Your task to perform on an android device: Go to Google maps Image 0: 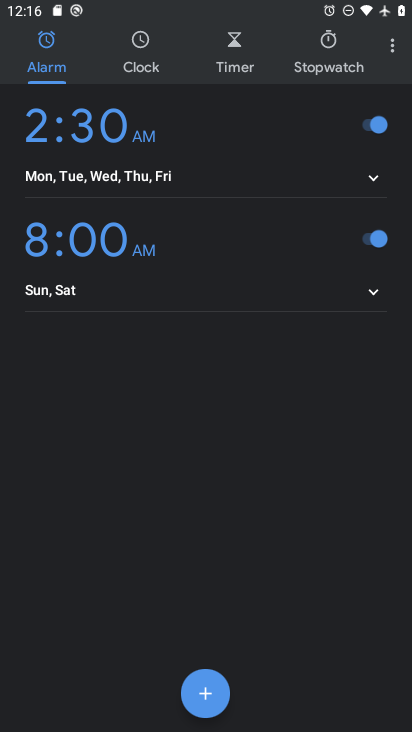
Step 0: press home button
Your task to perform on an android device: Go to Google maps Image 1: 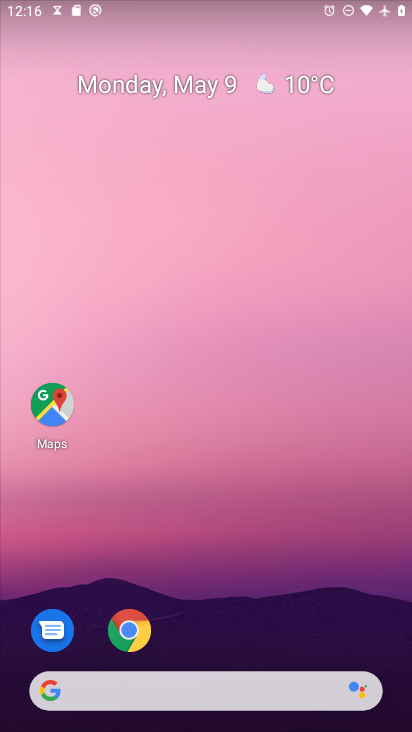
Step 1: drag from (180, 695) to (258, 194)
Your task to perform on an android device: Go to Google maps Image 2: 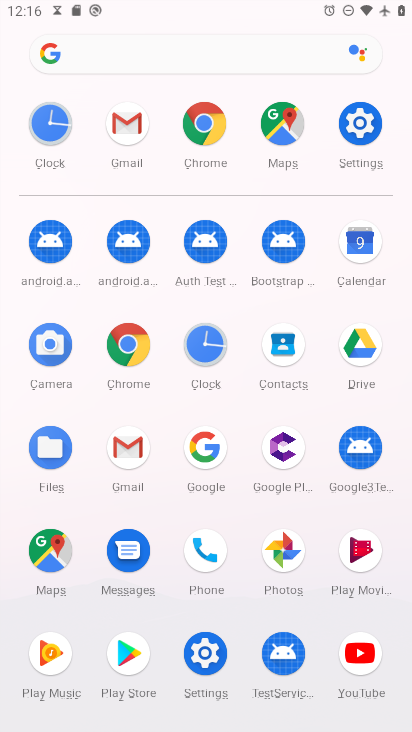
Step 2: click (281, 138)
Your task to perform on an android device: Go to Google maps Image 3: 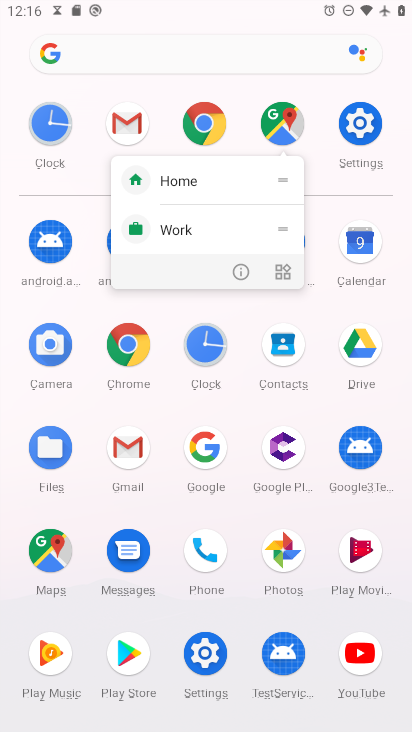
Step 3: click (290, 123)
Your task to perform on an android device: Go to Google maps Image 4: 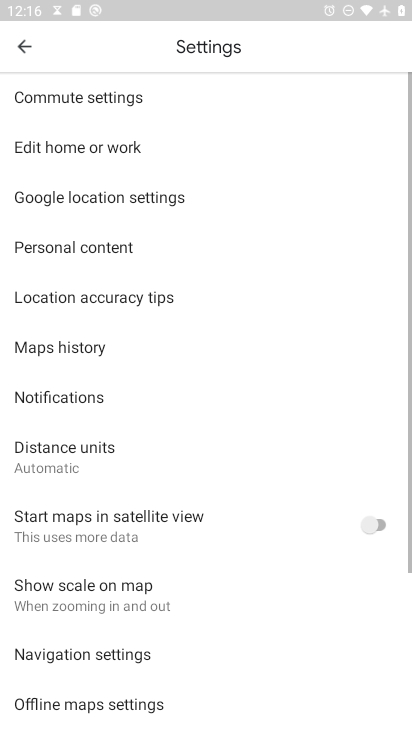
Step 4: click (28, 42)
Your task to perform on an android device: Go to Google maps Image 5: 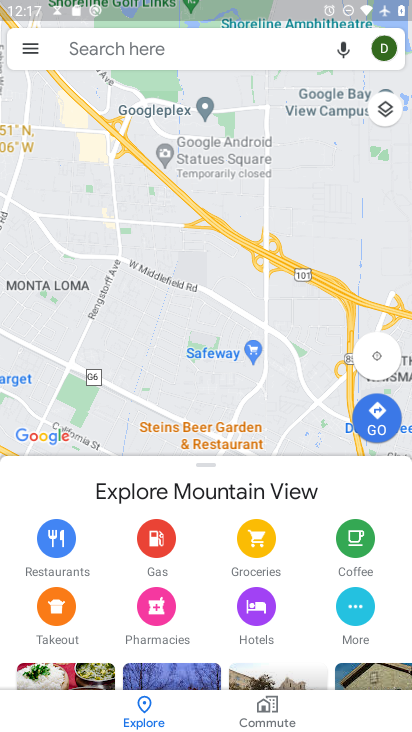
Step 5: task complete